Your task to perform on an android device: add a contact Image 0: 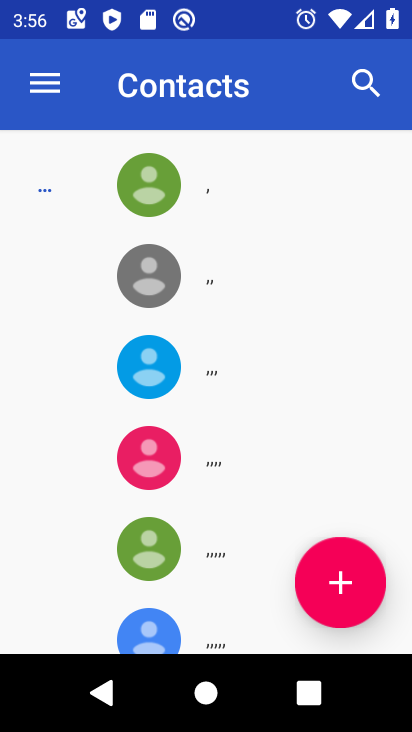
Step 0: click (327, 578)
Your task to perform on an android device: add a contact Image 1: 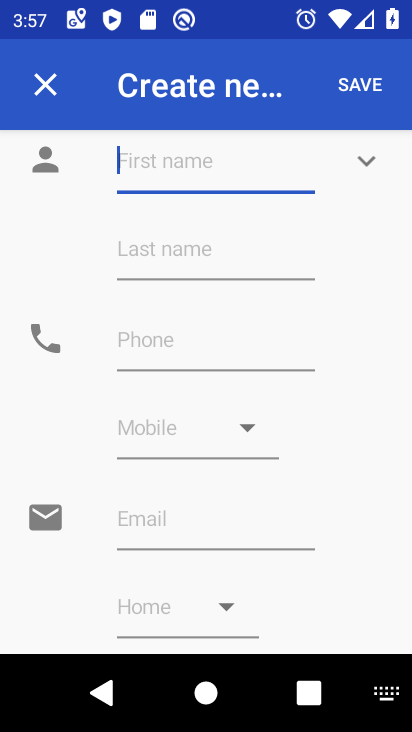
Step 1: type "wsdd"
Your task to perform on an android device: add a contact Image 2: 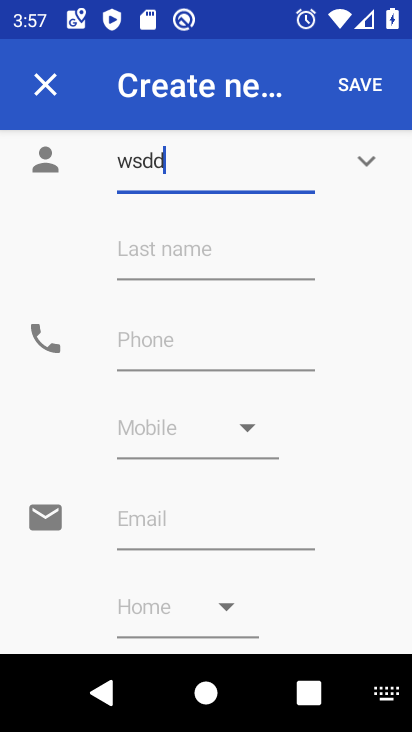
Step 2: click (215, 359)
Your task to perform on an android device: add a contact Image 3: 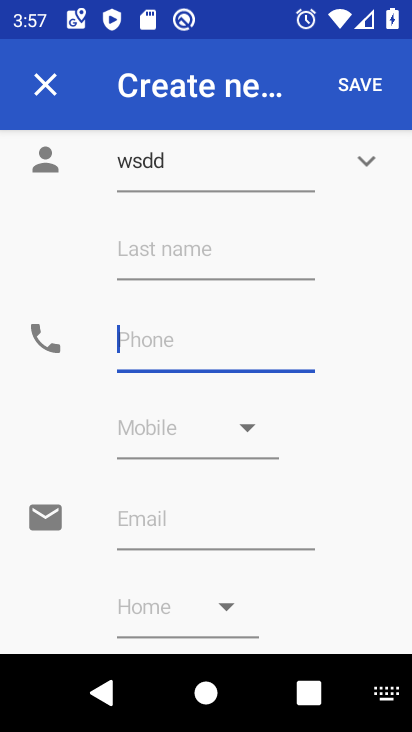
Step 3: type "3322332234"
Your task to perform on an android device: add a contact Image 4: 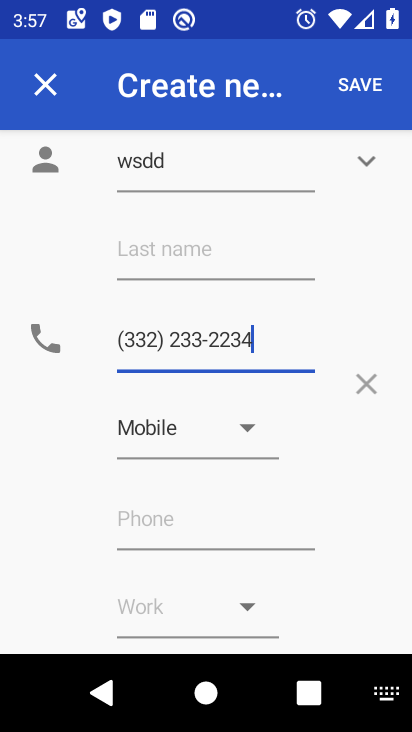
Step 4: click (378, 92)
Your task to perform on an android device: add a contact Image 5: 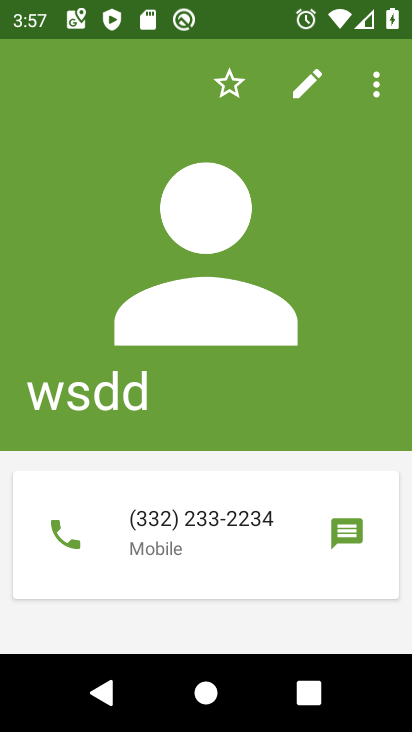
Step 5: task complete